Your task to perform on an android device: Open Google Chrome and open the bookmarks view Image 0: 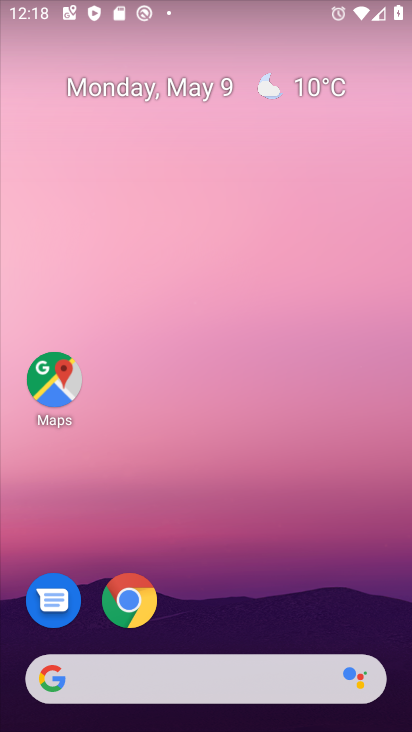
Step 0: click (134, 606)
Your task to perform on an android device: Open Google Chrome and open the bookmarks view Image 1: 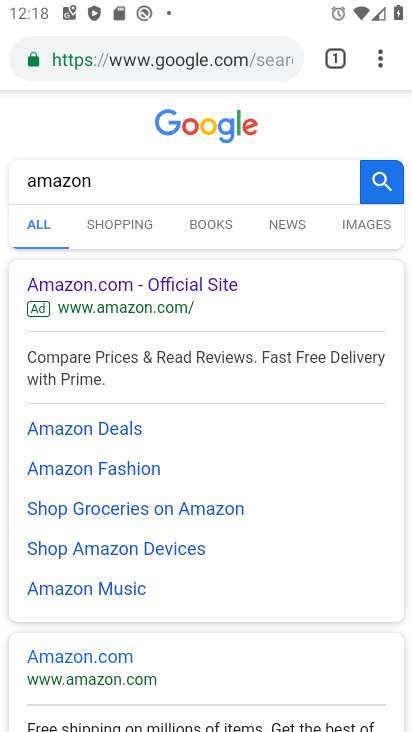
Step 1: click (379, 63)
Your task to perform on an android device: Open Google Chrome and open the bookmarks view Image 2: 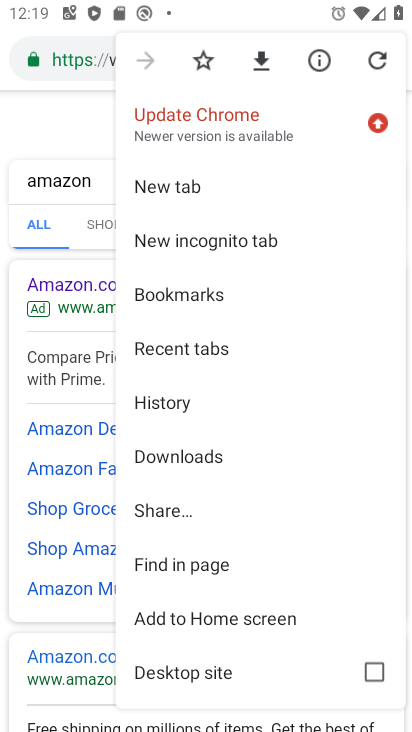
Step 2: click (189, 297)
Your task to perform on an android device: Open Google Chrome and open the bookmarks view Image 3: 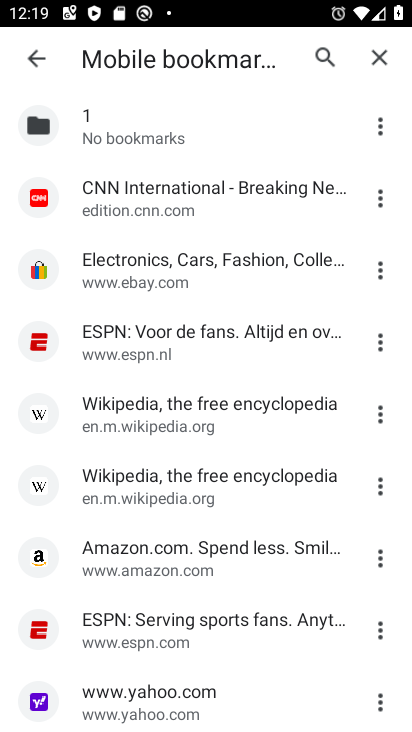
Step 3: task complete